Your task to perform on an android device: Open Chrome and go to the settings page Image 0: 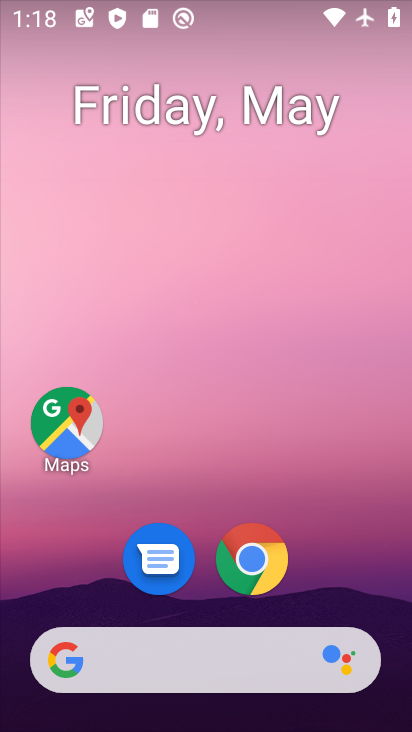
Step 0: click (247, 558)
Your task to perform on an android device: Open Chrome and go to the settings page Image 1: 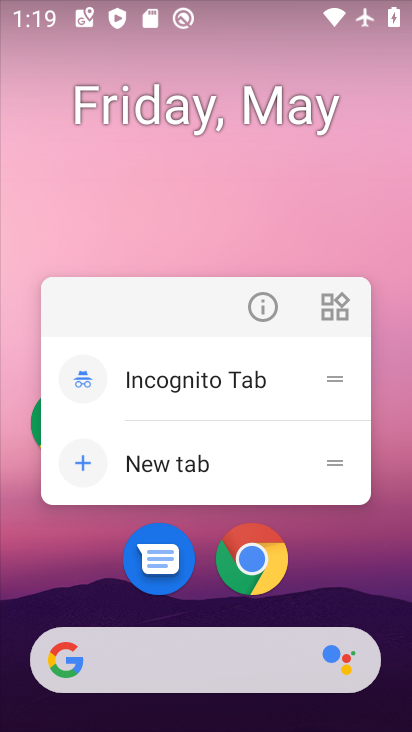
Step 1: click (248, 553)
Your task to perform on an android device: Open Chrome and go to the settings page Image 2: 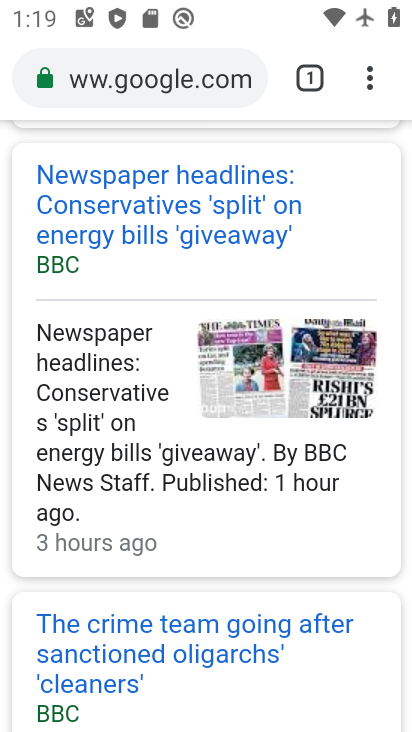
Step 2: task complete